Your task to perform on an android device: read, delete, or share a saved page in the chrome app Image 0: 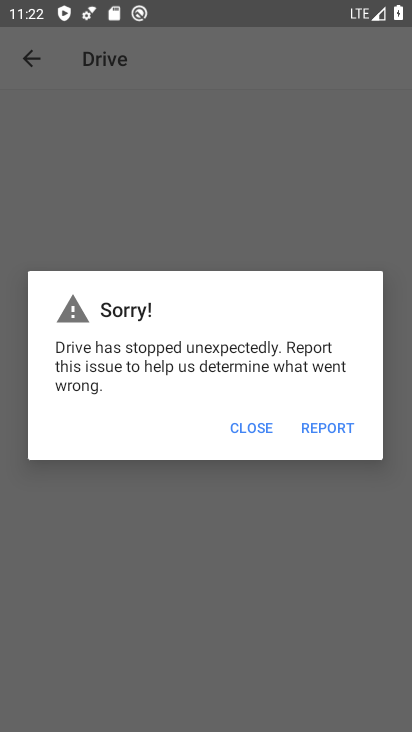
Step 0: press home button
Your task to perform on an android device: read, delete, or share a saved page in the chrome app Image 1: 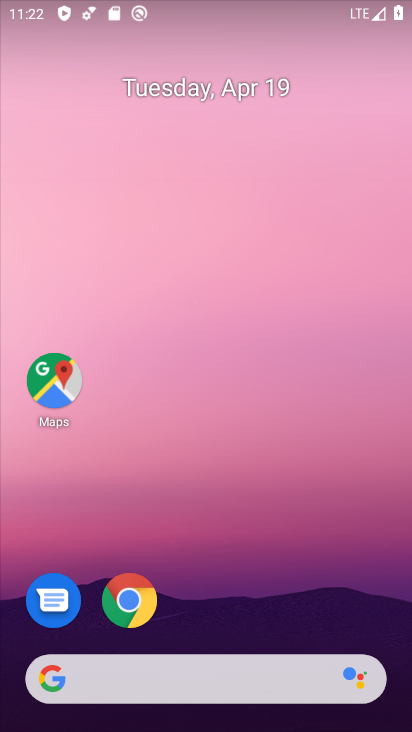
Step 1: click (132, 603)
Your task to perform on an android device: read, delete, or share a saved page in the chrome app Image 2: 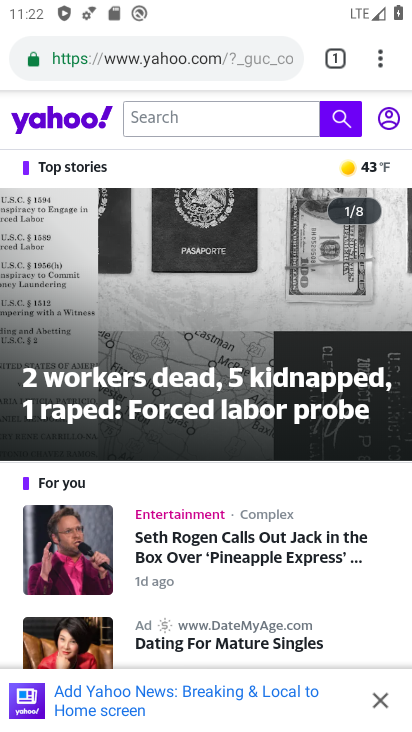
Step 2: click (382, 60)
Your task to perform on an android device: read, delete, or share a saved page in the chrome app Image 3: 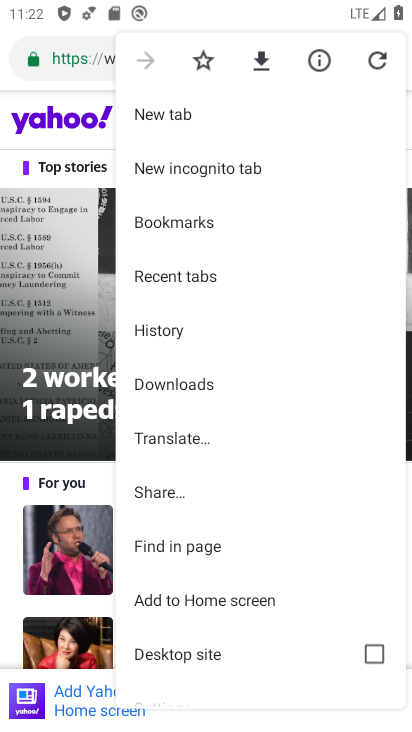
Step 3: click (146, 386)
Your task to perform on an android device: read, delete, or share a saved page in the chrome app Image 4: 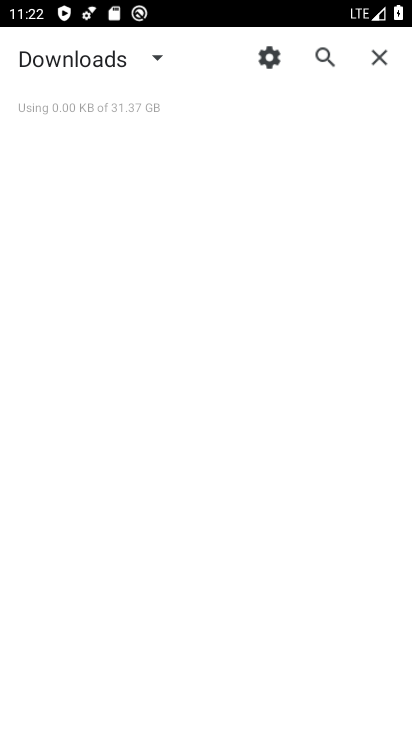
Step 4: click (156, 61)
Your task to perform on an android device: read, delete, or share a saved page in the chrome app Image 5: 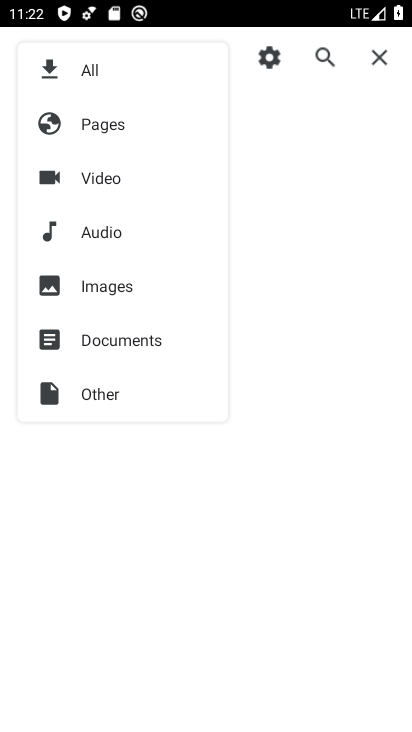
Step 5: click (87, 126)
Your task to perform on an android device: read, delete, or share a saved page in the chrome app Image 6: 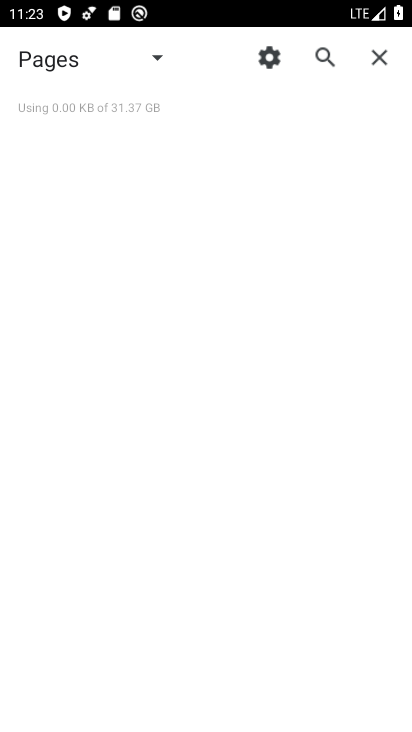
Step 6: task complete